Your task to perform on an android device: Open calendar and show me the third week of next month Image 0: 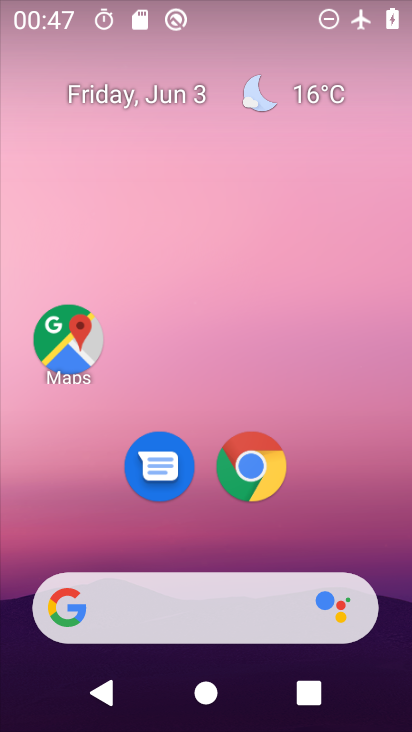
Step 0: drag from (207, 498) to (219, 168)
Your task to perform on an android device: Open calendar and show me the third week of next month Image 1: 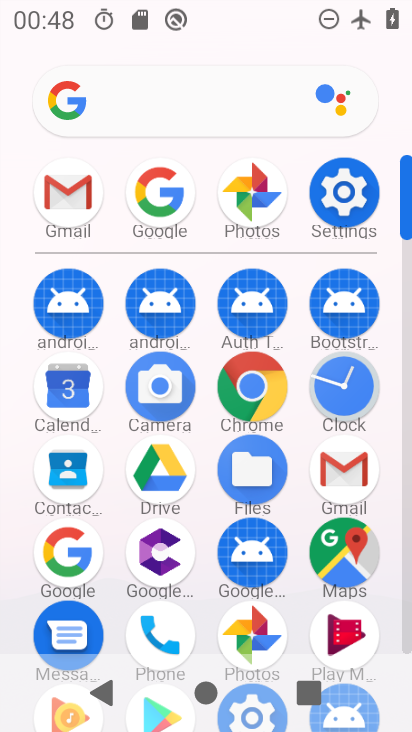
Step 1: click (73, 379)
Your task to perform on an android device: Open calendar and show me the third week of next month Image 2: 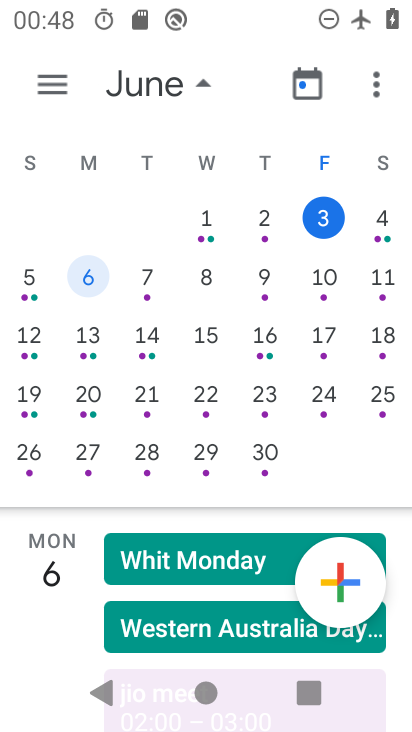
Step 2: drag from (369, 304) to (40, 274)
Your task to perform on an android device: Open calendar and show me the third week of next month Image 3: 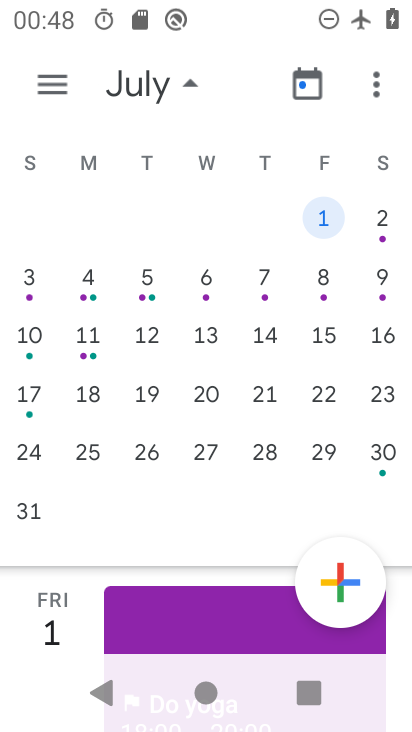
Step 3: click (30, 344)
Your task to perform on an android device: Open calendar and show me the third week of next month Image 4: 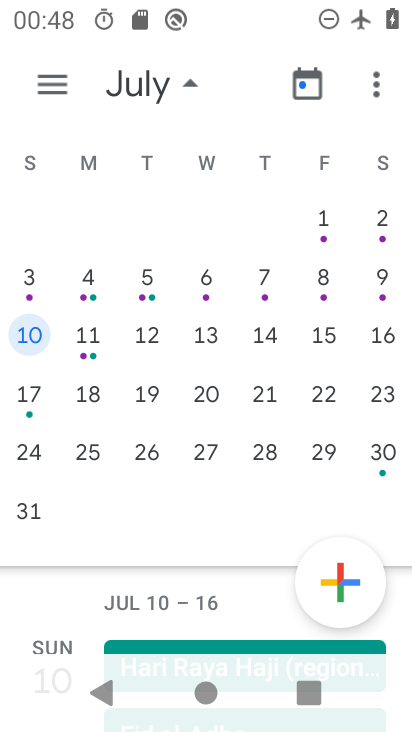
Step 4: task complete